Your task to perform on an android device: Search for vegetarian restaurants on Maps Image 0: 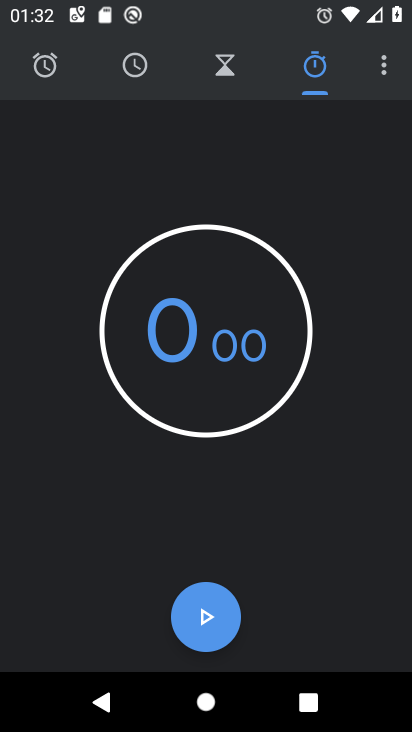
Step 0: press home button
Your task to perform on an android device: Search for vegetarian restaurants on Maps Image 1: 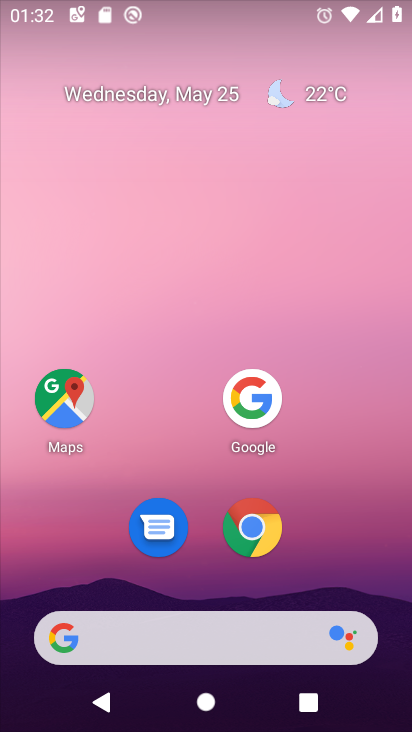
Step 1: click (51, 398)
Your task to perform on an android device: Search for vegetarian restaurants on Maps Image 2: 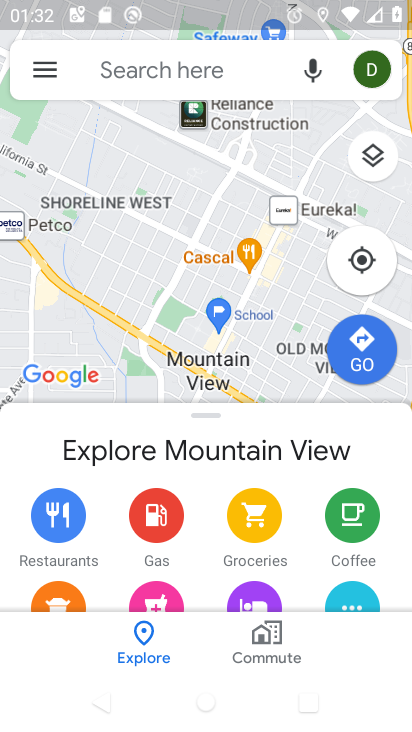
Step 2: click (213, 82)
Your task to perform on an android device: Search for vegetarian restaurants on Maps Image 3: 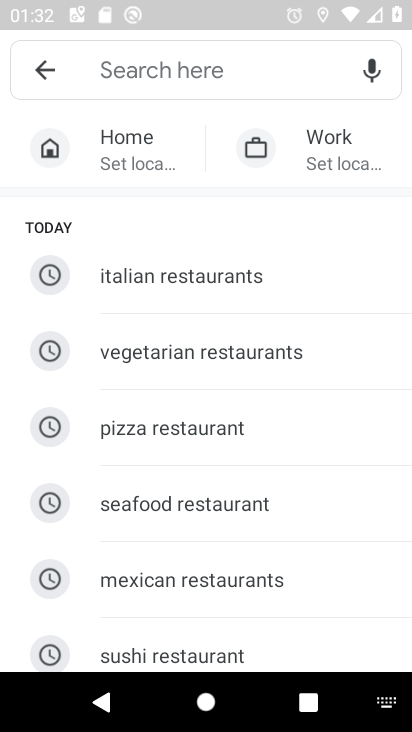
Step 3: click (220, 361)
Your task to perform on an android device: Search for vegetarian restaurants on Maps Image 4: 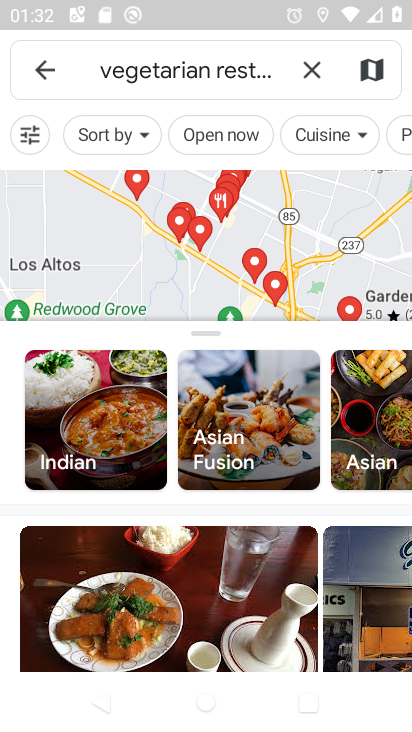
Step 4: task complete